Your task to perform on an android device: turn off airplane mode Image 0: 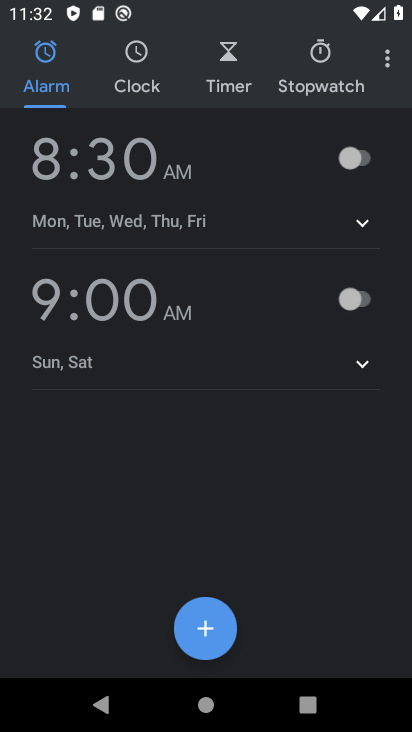
Step 0: press home button
Your task to perform on an android device: turn off airplane mode Image 1: 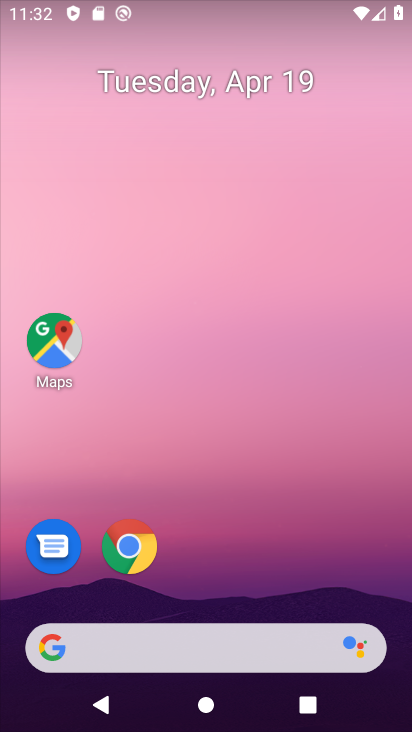
Step 1: drag from (264, 582) to (297, 0)
Your task to perform on an android device: turn off airplane mode Image 2: 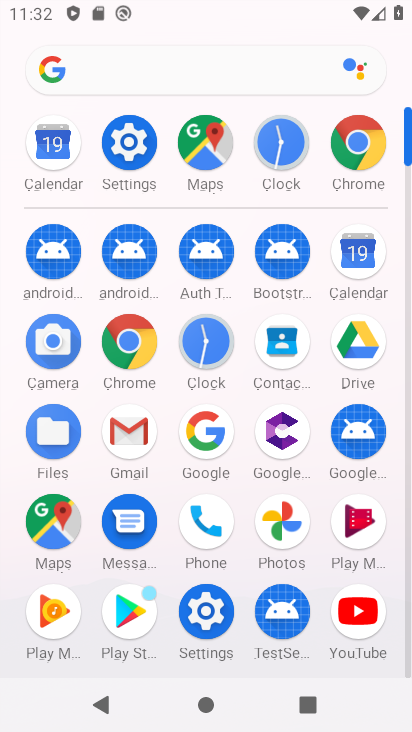
Step 2: click (135, 147)
Your task to perform on an android device: turn off airplane mode Image 3: 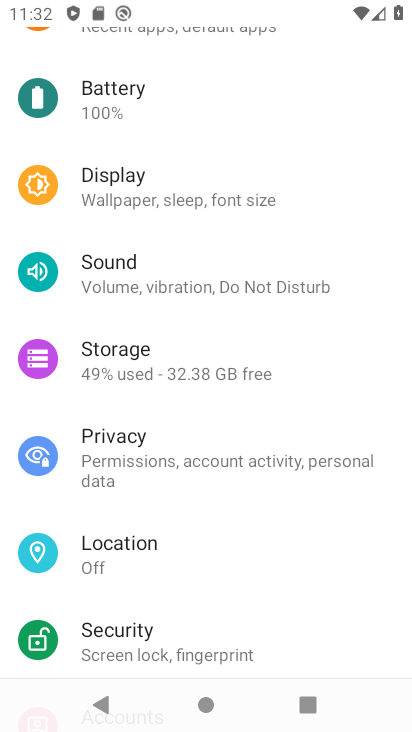
Step 3: drag from (264, 143) to (254, 471)
Your task to perform on an android device: turn off airplane mode Image 4: 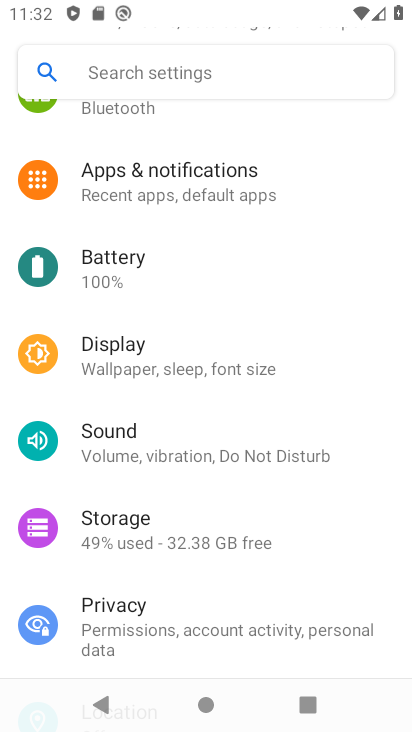
Step 4: drag from (294, 149) to (280, 602)
Your task to perform on an android device: turn off airplane mode Image 5: 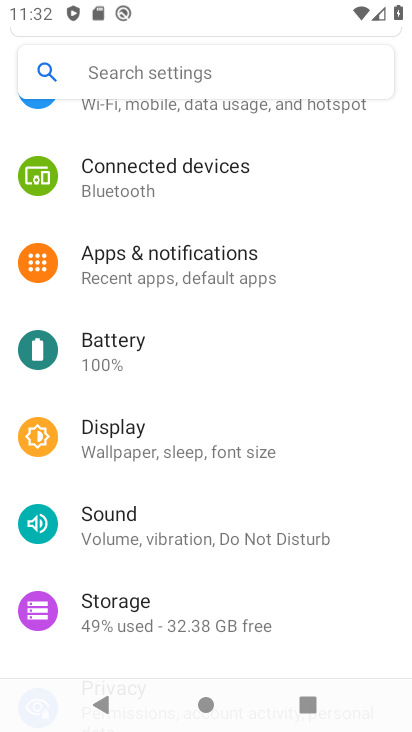
Step 5: drag from (329, 220) to (253, 681)
Your task to perform on an android device: turn off airplane mode Image 6: 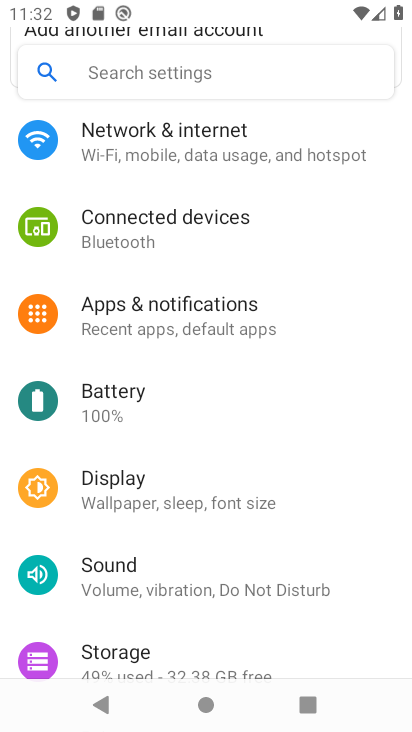
Step 6: click (336, 148)
Your task to perform on an android device: turn off airplane mode Image 7: 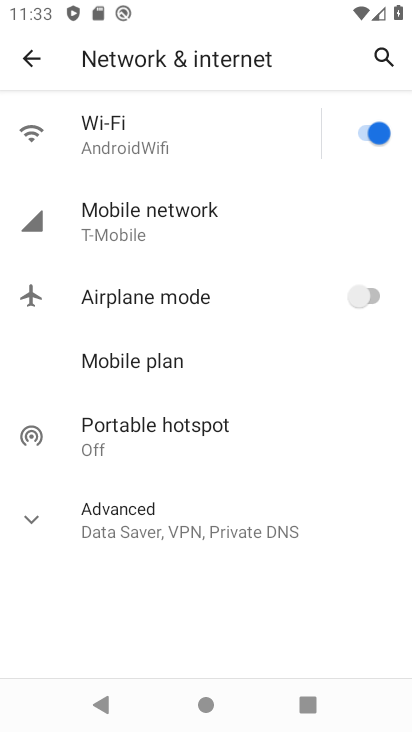
Step 7: task complete